Your task to perform on an android device: What time is it in Berlin? Image 0: 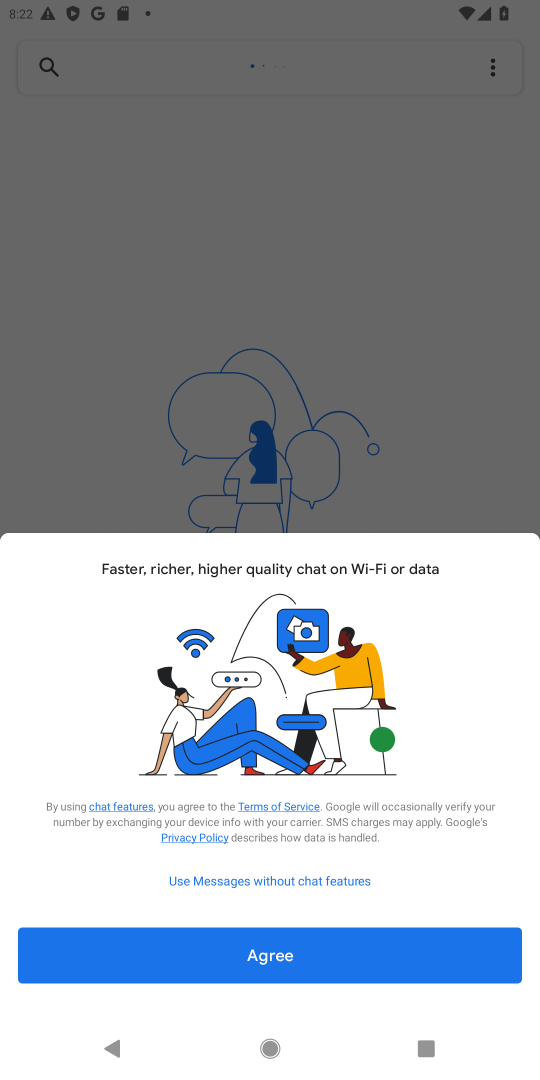
Step 0: press home button
Your task to perform on an android device: What time is it in Berlin? Image 1: 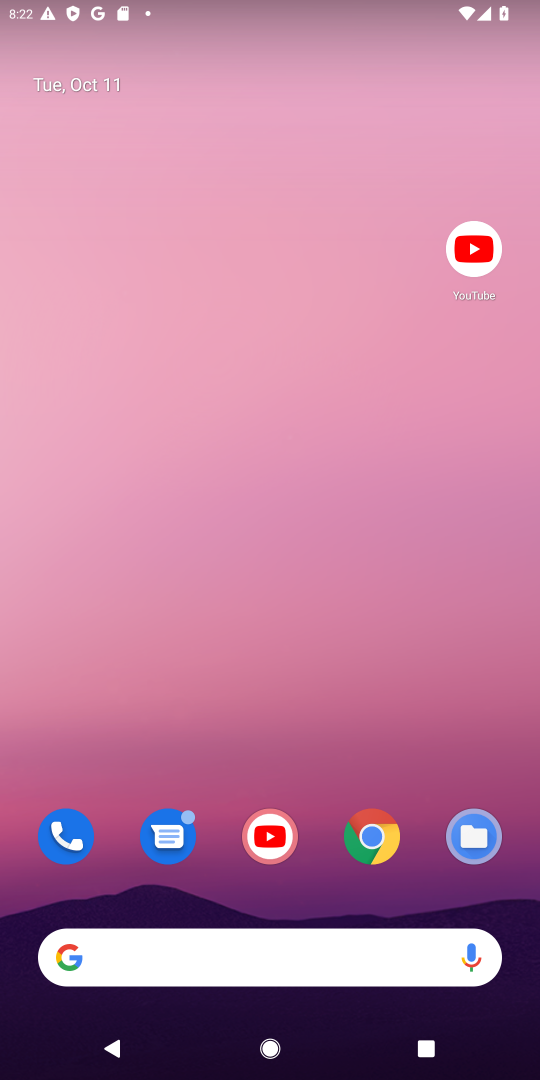
Step 1: click (371, 838)
Your task to perform on an android device: What time is it in Berlin? Image 2: 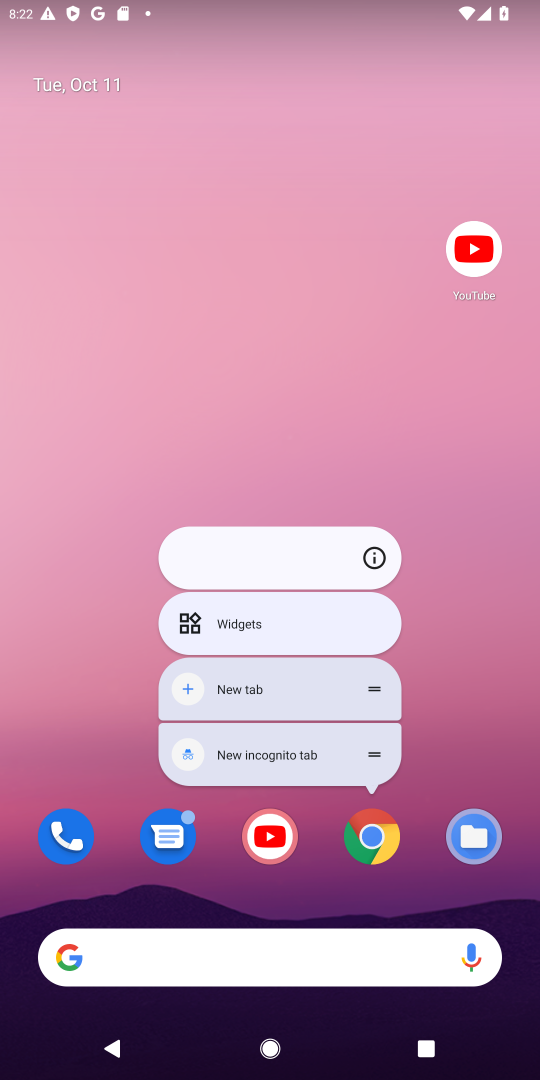
Step 2: click (371, 837)
Your task to perform on an android device: What time is it in Berlin? Image 3: 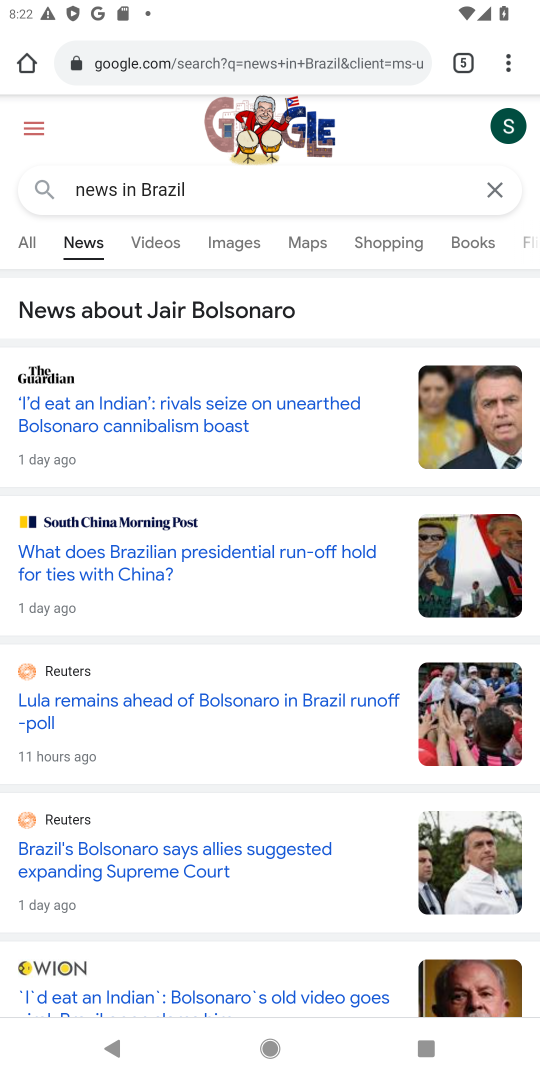
Step 3: click (295, 61)
Your task to perform on an android device: What time is it in Berlin? Image 4: 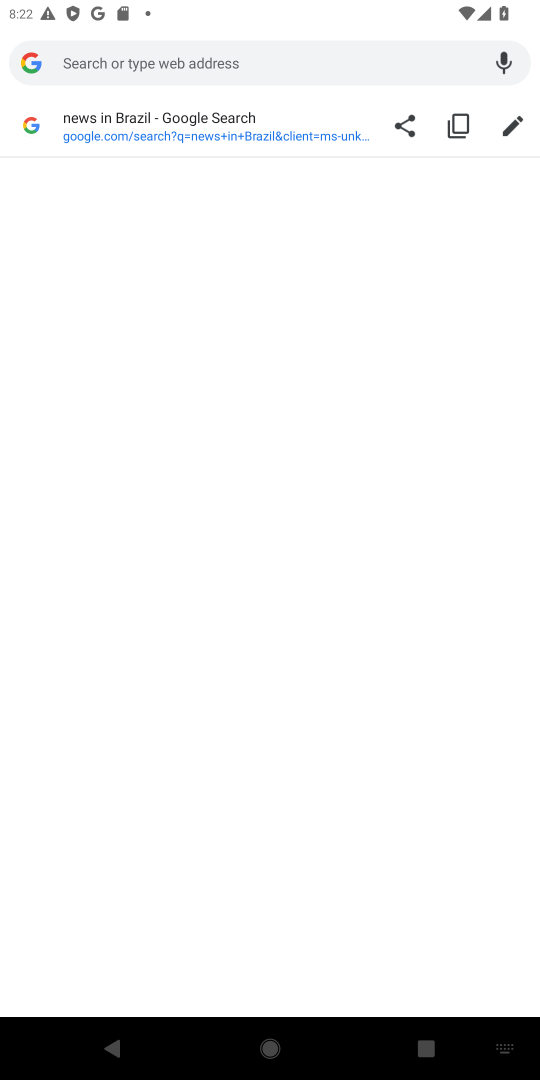
Step 4: type "What time is it in Berlin"
Your task to perform on an android device: What time is it in Berlin? Image 5: 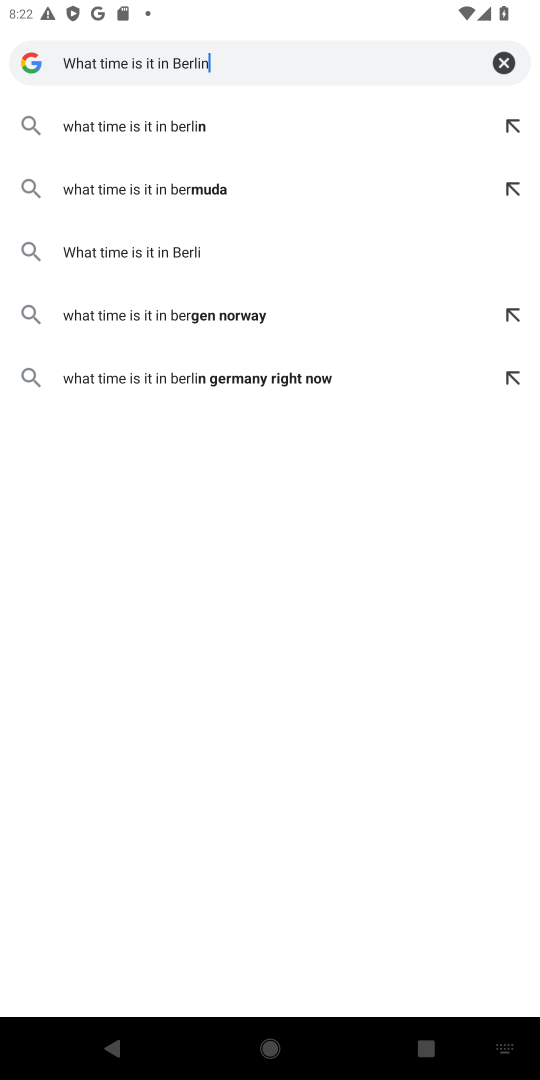
Step 5: press enter
Your task to perform on an android device: What time is it in Berlin? Image 6: 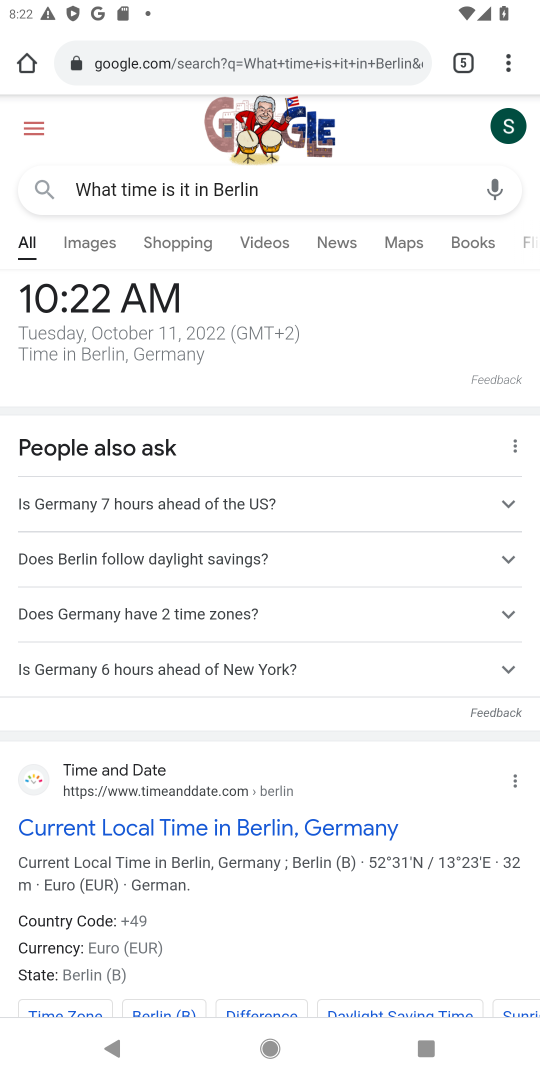
Step 6: click (172, 125)
Your task to perform on an android device: What time is it in Berlin? Image 7: 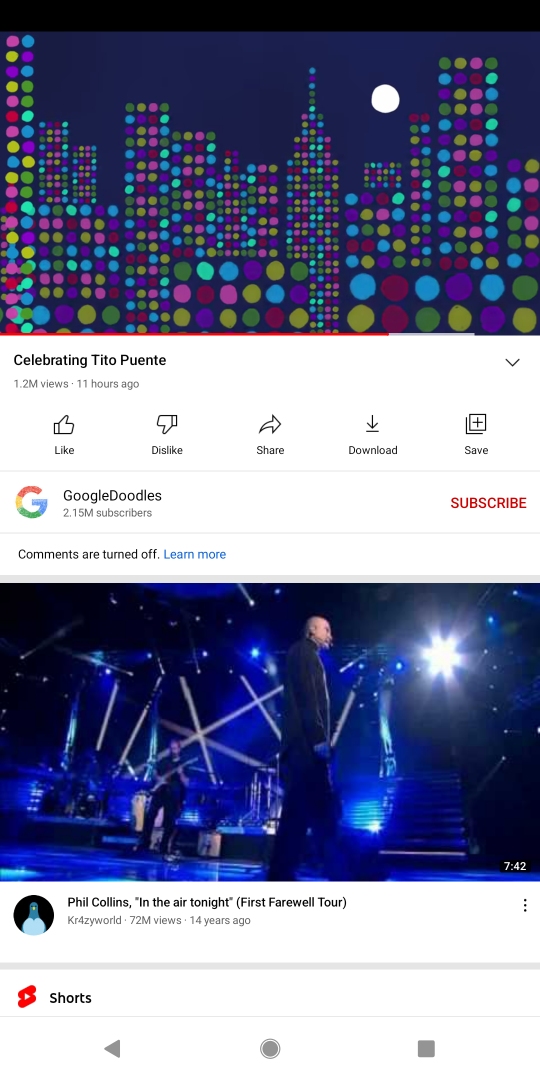
Step 7: press back button
Your task to perform on an android device: What time is it in Berlin? Image 8: 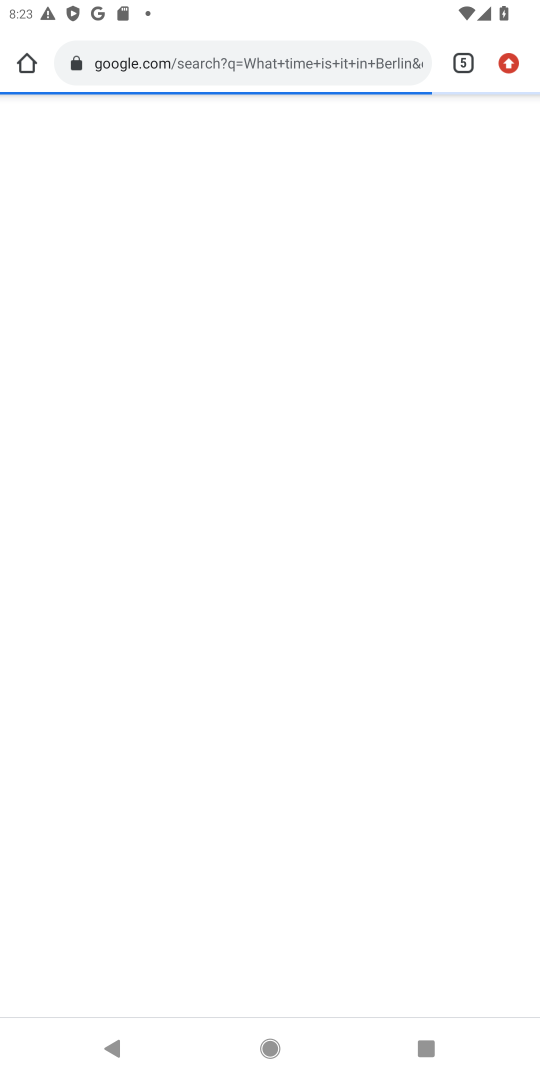
Step 8: press home button
Your task to perform on an android device: What time is it in Berlin? Image 9: 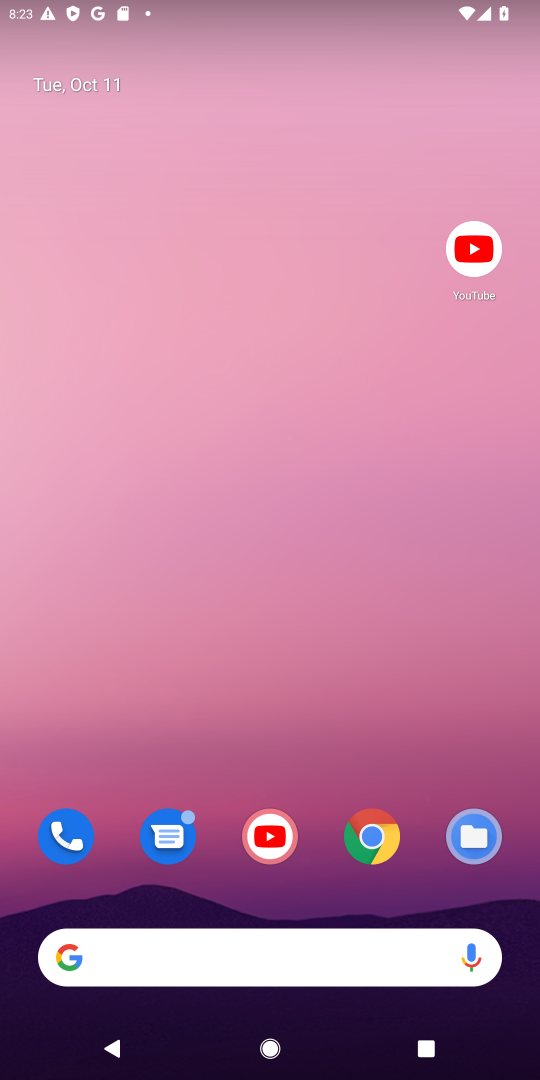
Step 9: click (375, 815)
Your task to perform on an android device: What time is it in Berlin? Image 10: 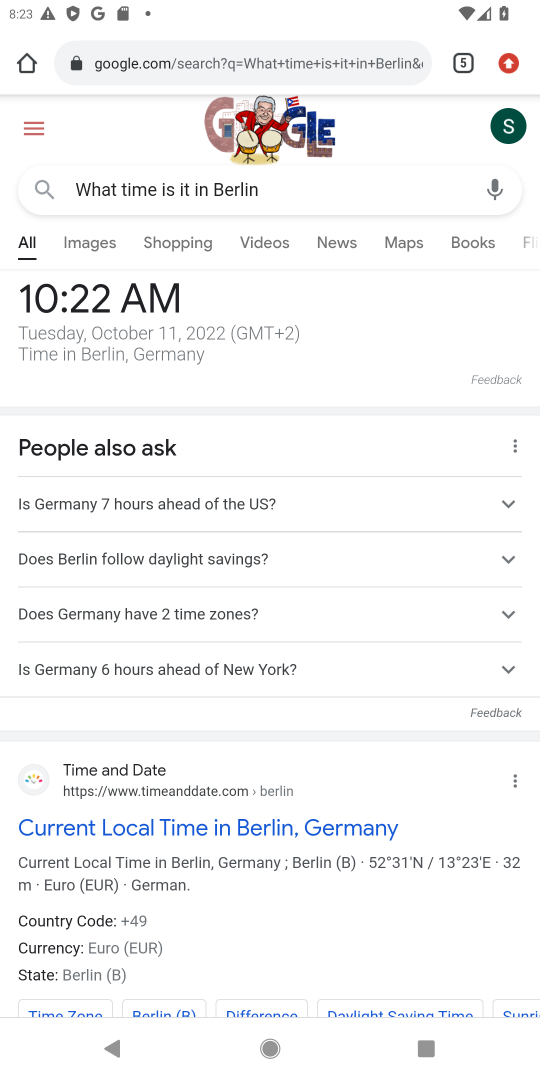
Step 10: task complete